Your task to perform on an android device: What's on my calendar today? Image 0: 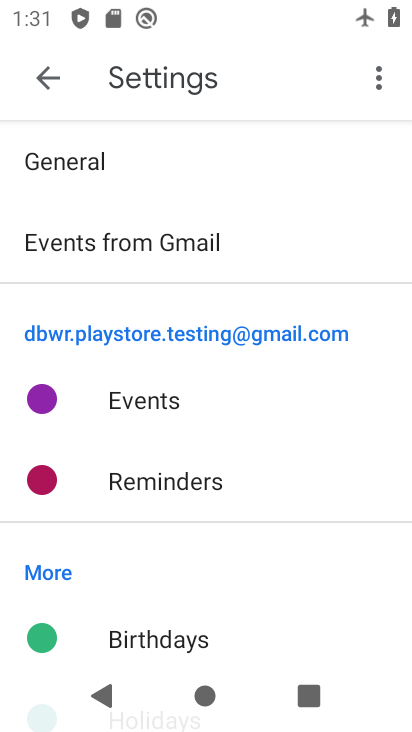
Step 0: press home button
Your task to perform on an android device: What's on my calendar today? Image 1: 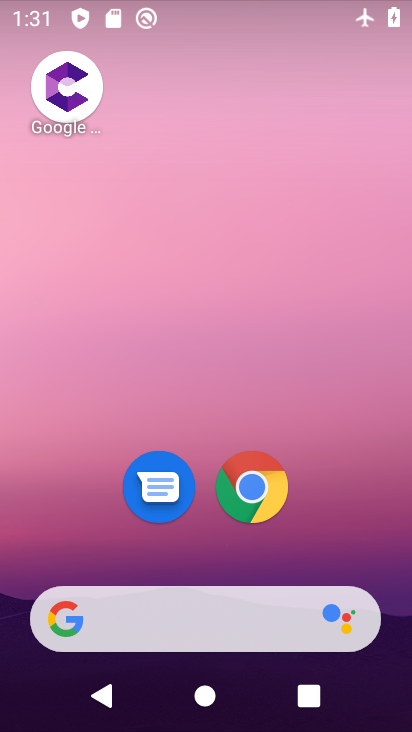
Step 1: drag from (361, 527) to (275, 70)
Your task to perform on an android device: What's on my calendar today? Image 2: 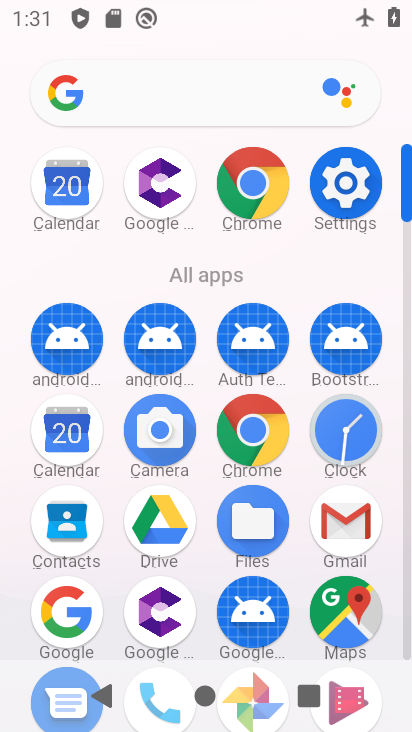
Step 2: click (67, 200)
Your task to perform on an android device: What's on my calendar today? Image 3: 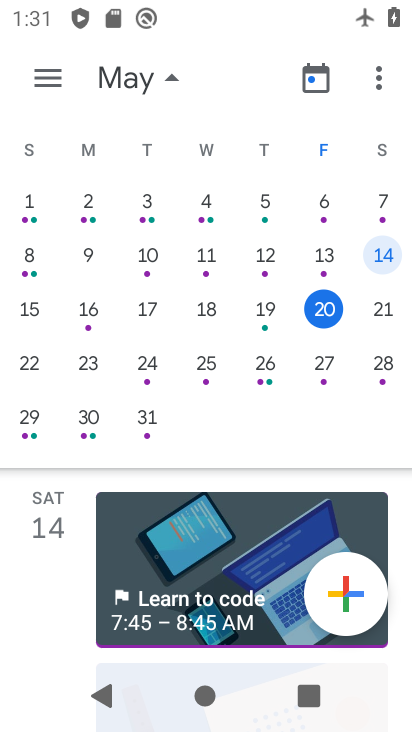
Step 3: task complete